Your task to perform on an android device: View the shopping cart on ebay.com. Add razer blade to the cart on ebay.com Image 0: 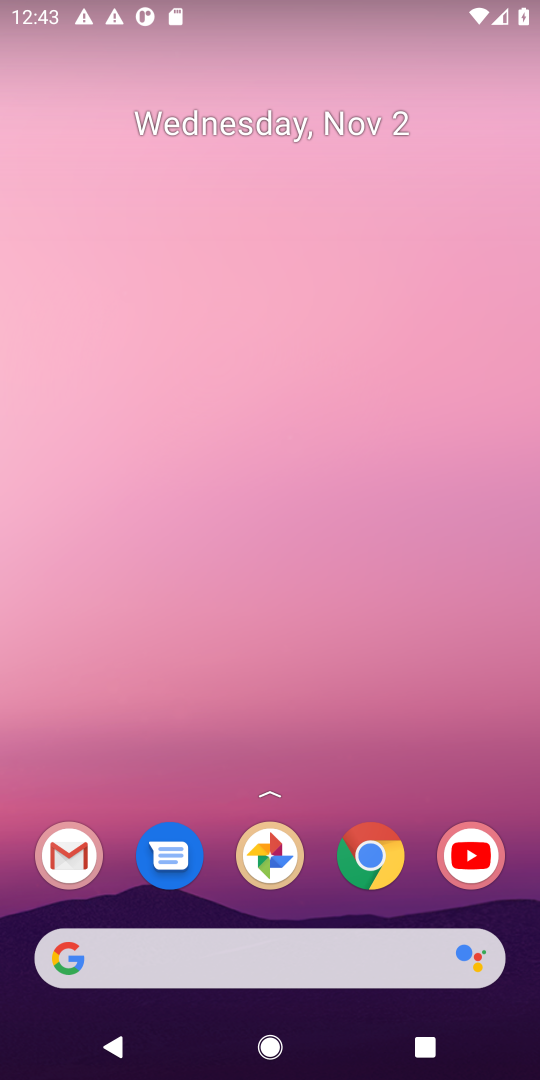
Step 0: press home button
Your task to perform on an android device: View the shopping cart on ebay.com. Add razer blade to the cart on ebay.com Image 1: 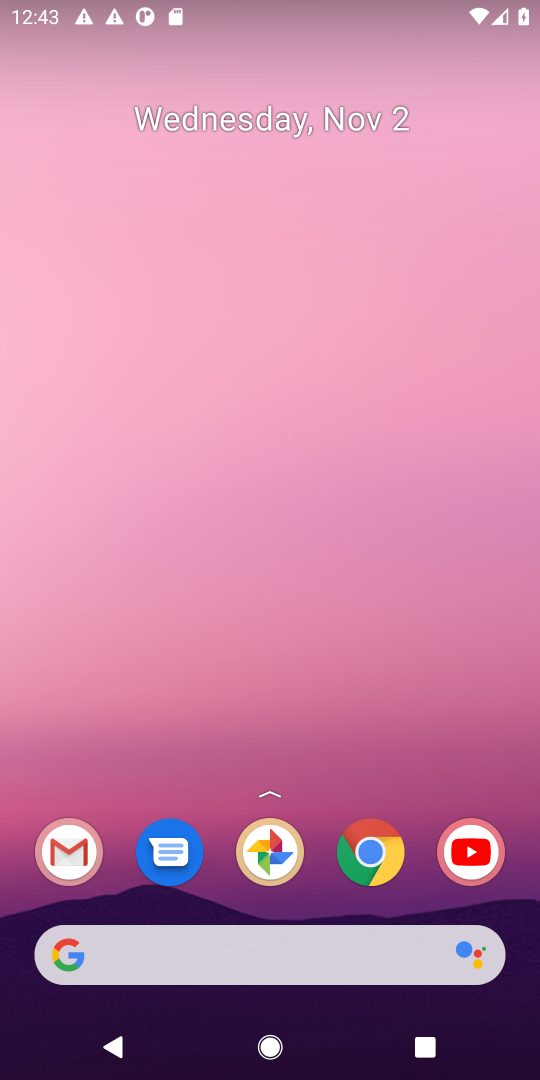
Step 1: click (67, 949)
Your task to perform on an android device: View the shopping cart on ebay.com. Add razer blade to the cart on ebay.com Image 2: 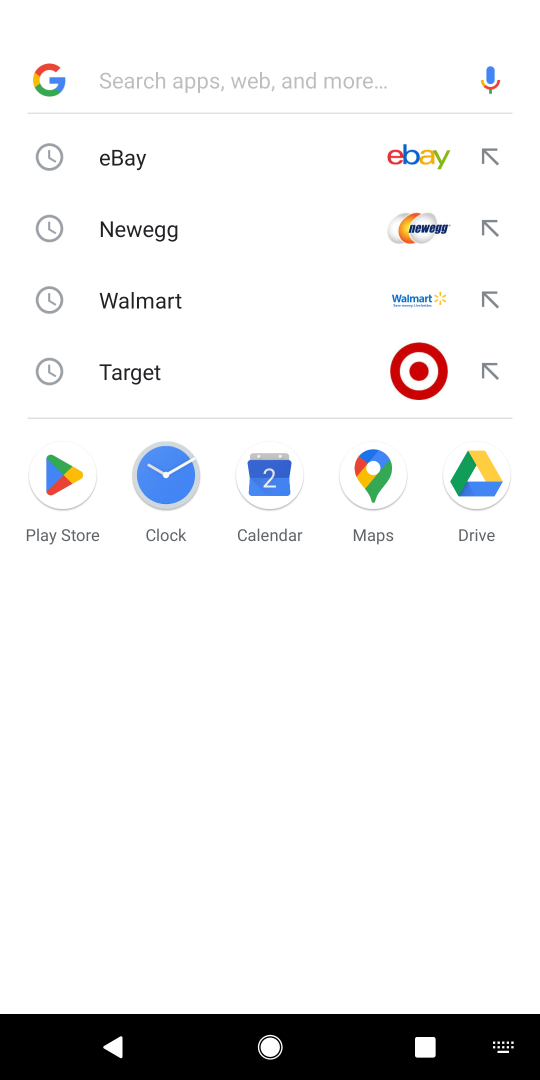
Step 2: click (431, 160)
Your task to perform on an android device: View the shopping cart on ebay.com. Add razer blade to the cart on ebay.com Image 3: 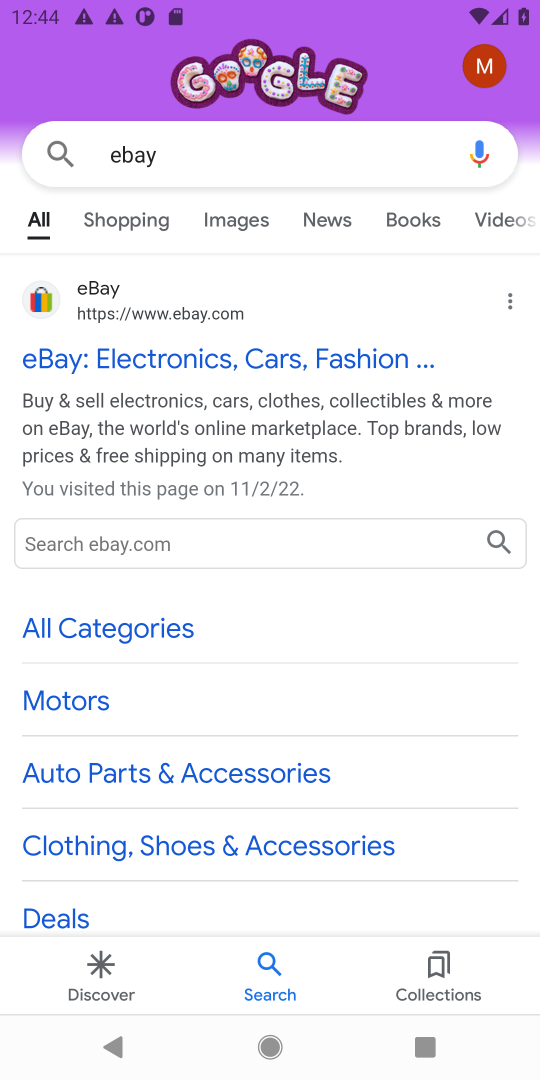
Step 3: click (157, 367)
Your task to perform on an android device: View the shopping cart on ebay.com. Add razer blade to the cart on ebay.com Image 4: 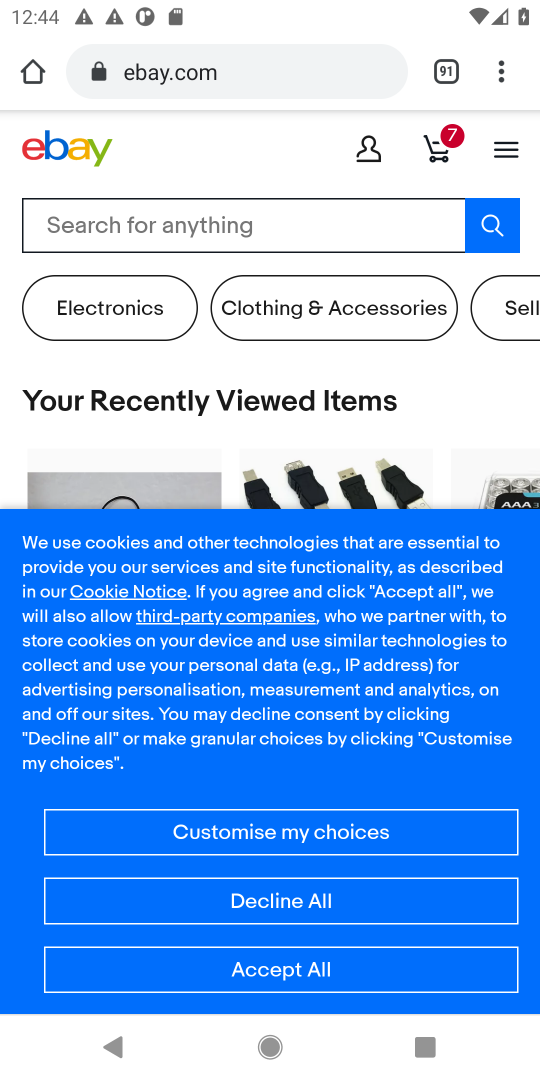
Step 4: click (436, 153)
Your task to perform on an android device: View the shopping cart on ebay.com. Add razer blade to the cart on ebay.com Image 5: 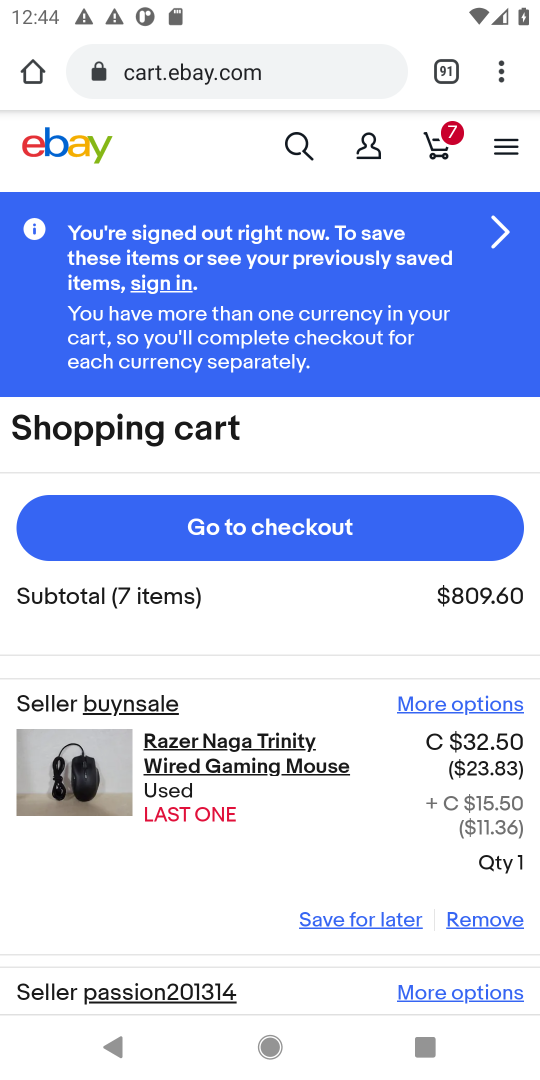
Step 5: drag from (264, 860) to (343, 2)
Your task to perform on an android device: View the shopping cart on ebay.com. Add razer blade to the cart on ebay.com Image 6: 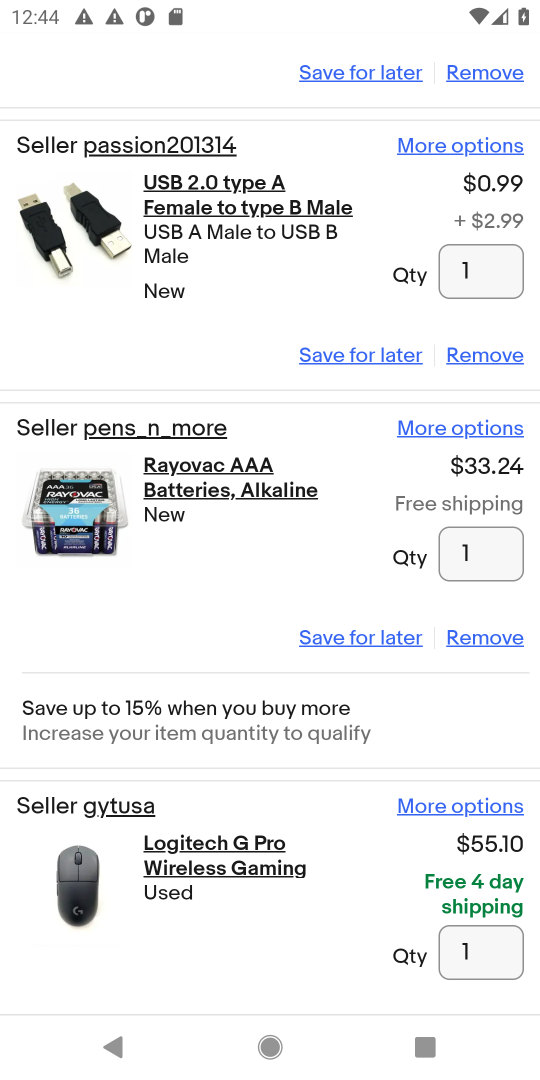
Step 6: drag from (313, 168) to (322, 1078)
Your task to perform on an android device: View the shopping cart on ebay.com. Add razer blade to the cart on ebay.com Image 7: 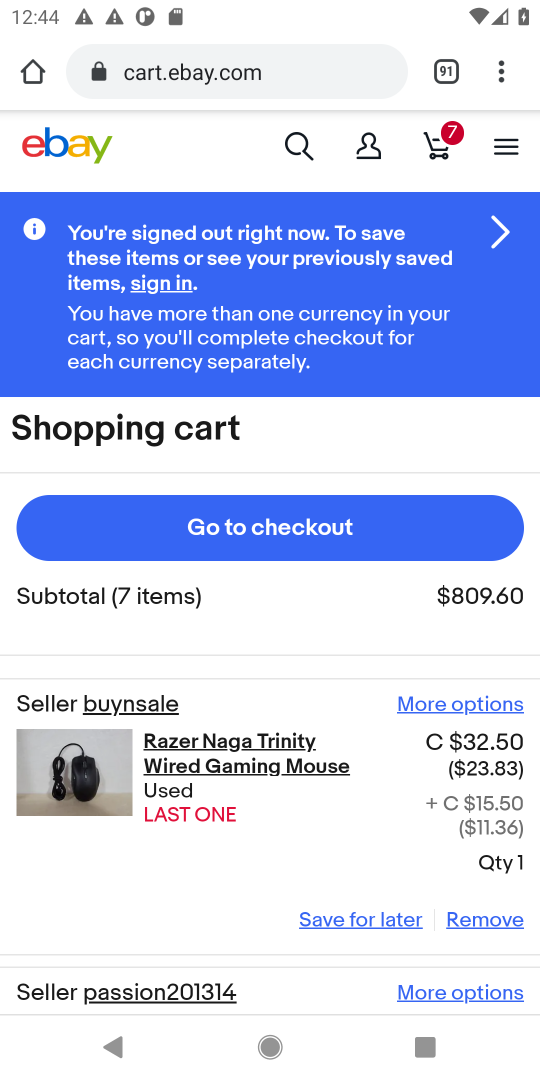
Step 7: click (306, 150)
Your task to perform on an android device: View the shopping cart on ebay.com. Add razer blade to the cart on ebay.com Image 8: 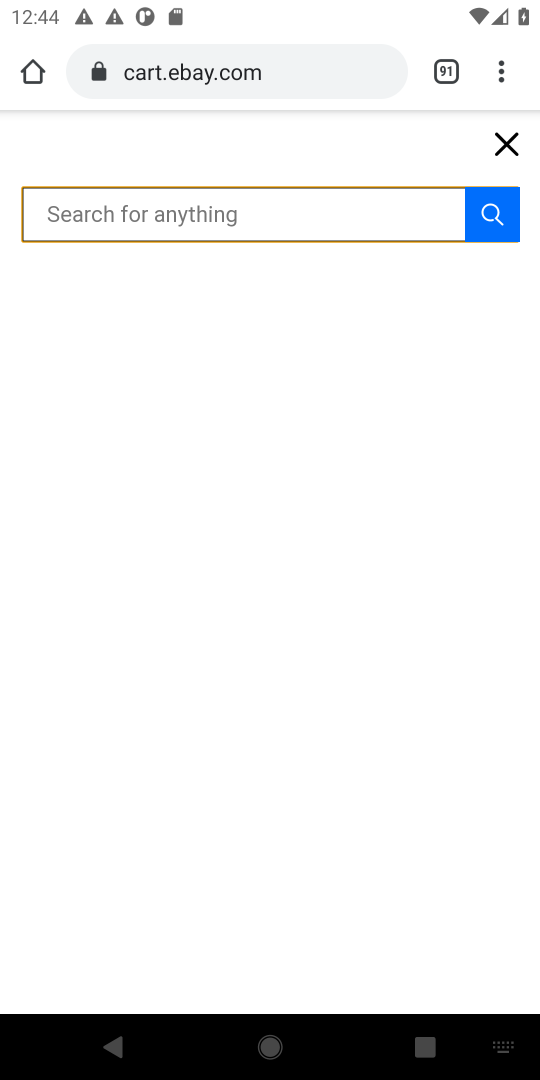
Step 8: click (227, 219)
Your task to perform on an android device: View the shopping cart on ebay.com. Add razer blade to the cart on ebay.com Image 9: 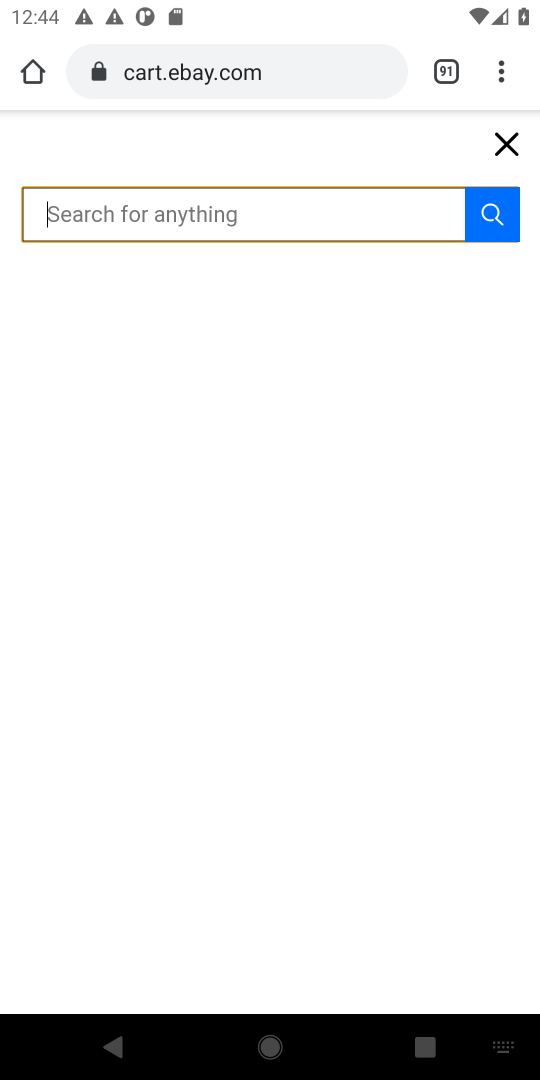
Step 9: type "razer blade"
Your task to perform on an android device: View the shopping cart on ebay.com. Add razer blade to the cart on ebay.com Image 10: 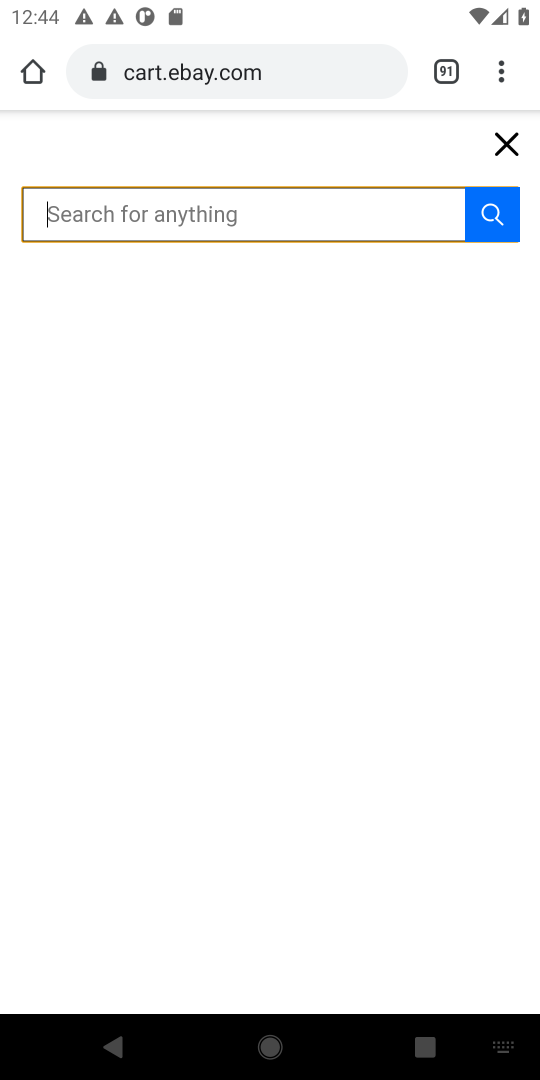
Step 10: click (145, 216)
Your task to perform on an android device: View the shopping cart on ebay.com. Add razer blade to the cart on ebay.com Image 11: 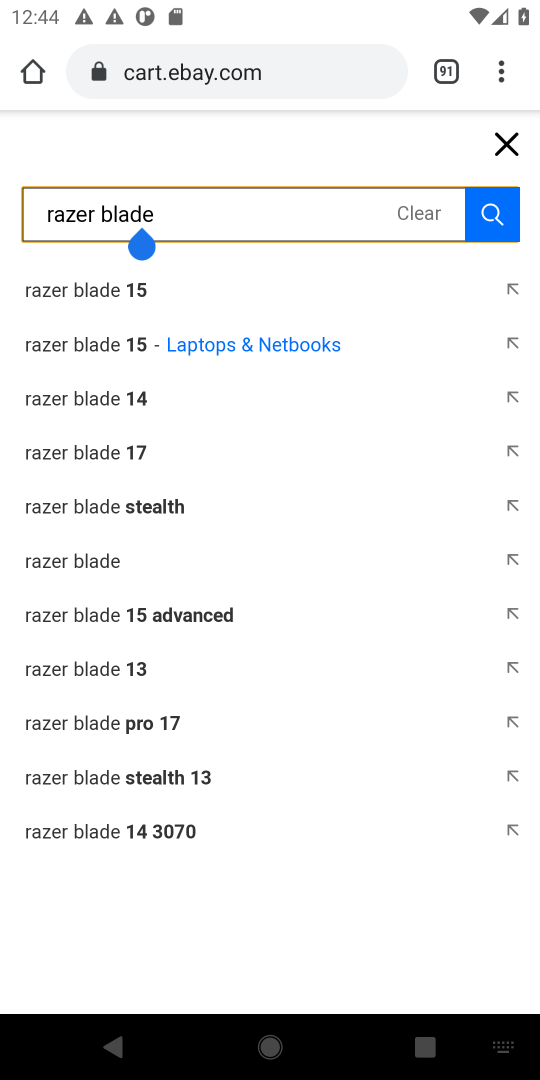
Step 11: click (503, 219)
Your task to perform on an android device: View the shopping cart on ebay.com. Add razer blade to the cart on ebay.com Image 12: 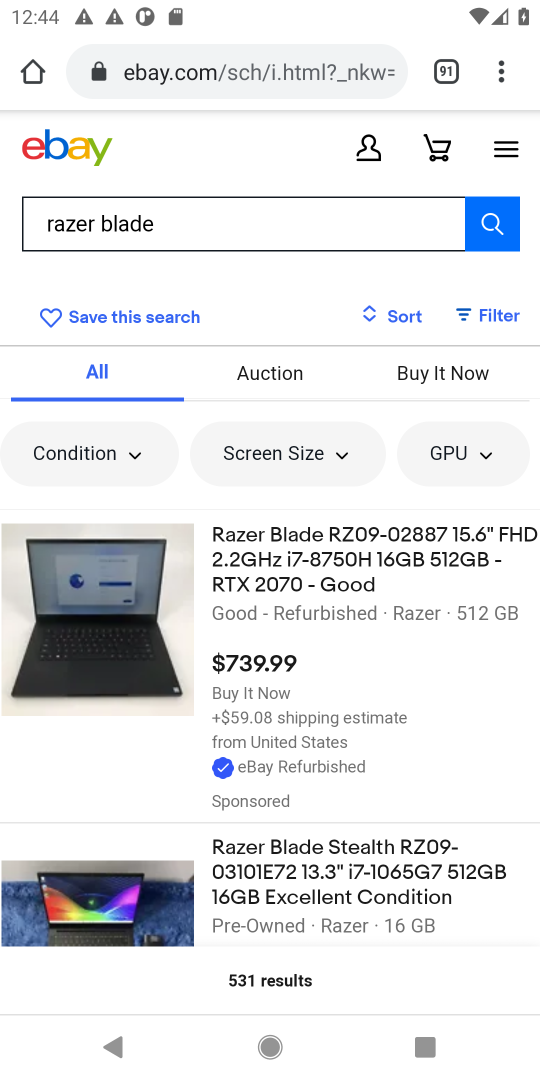
Step 12: click (318, 545)
Your task to perform on an android device: View the shopping cart on ebay.com. Add razer blade to the cart on ebay.com Image 13: 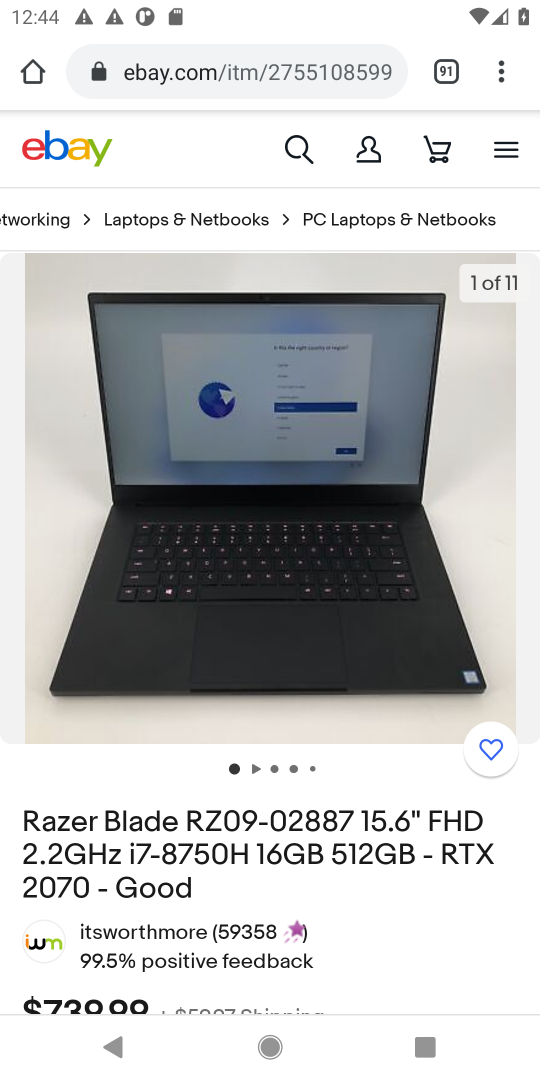
Step 13: drag from (415, 916) to (342, 405)
Your task to perform on an android device: View the shopping cart on ebay.com. Add razer blade to the cart on ebay.com Image 14: 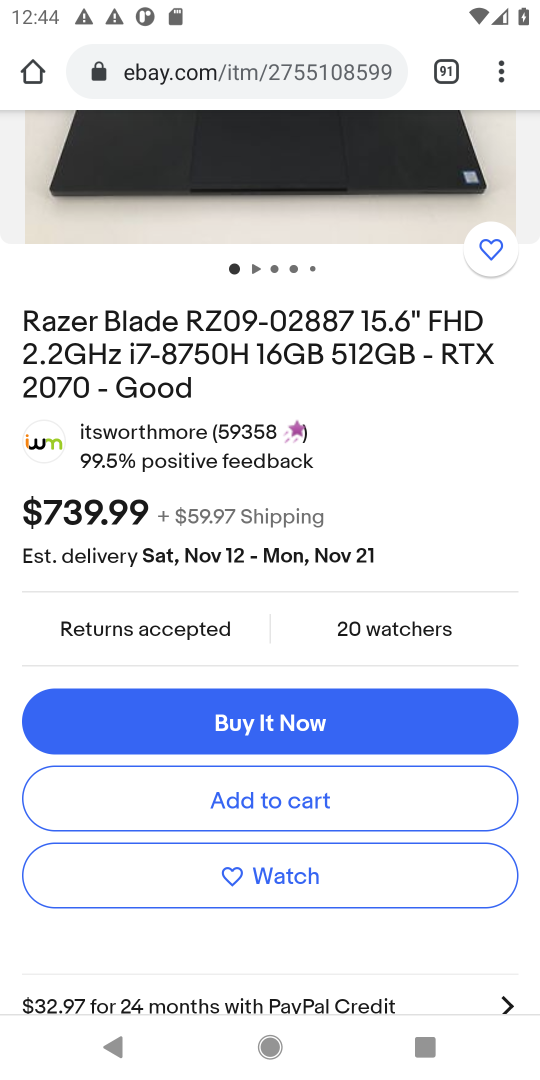
Step 14: click (295, 805)
Your task to perform on an android device: View the shopping cart on ebay.com. Add razer blade to the cart on ebay.com Image 15: 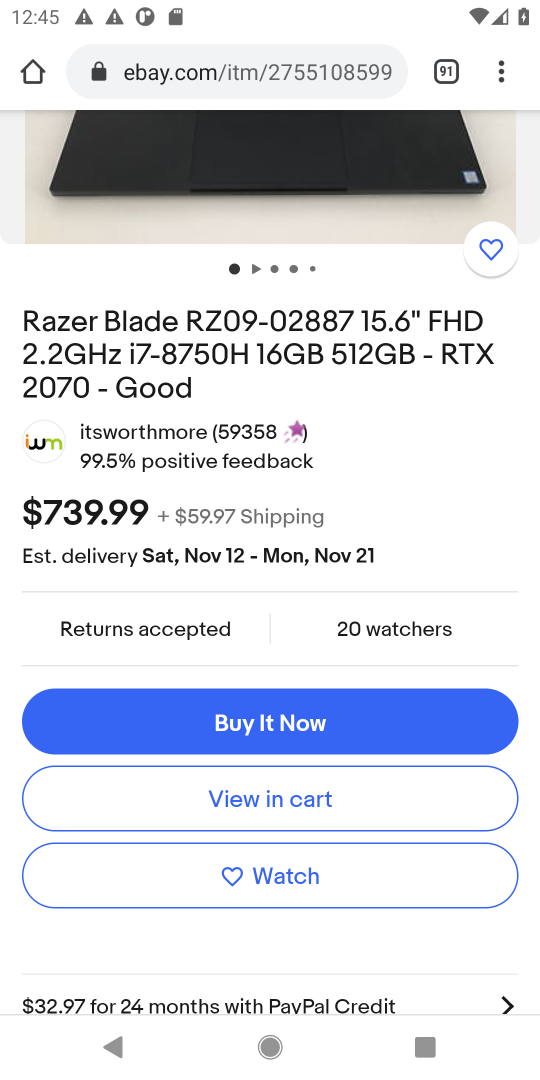
Step 15: task complete